Your task to perform on an android device: check battery use Image 0: 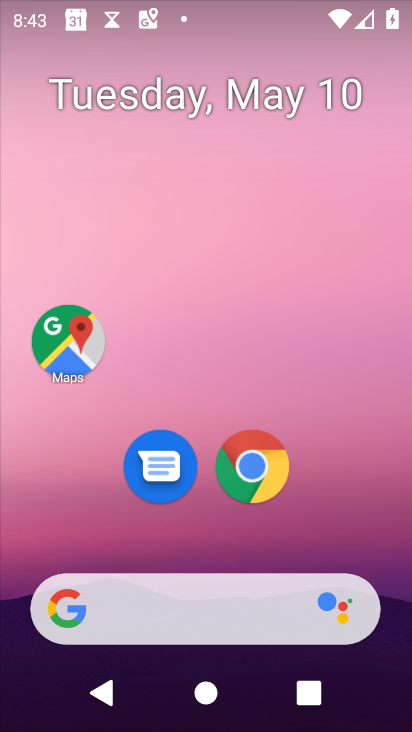
Step 0: drag from (341, 534) to (332, 156)
Your task to perform on an android device: check battery use Image 1: 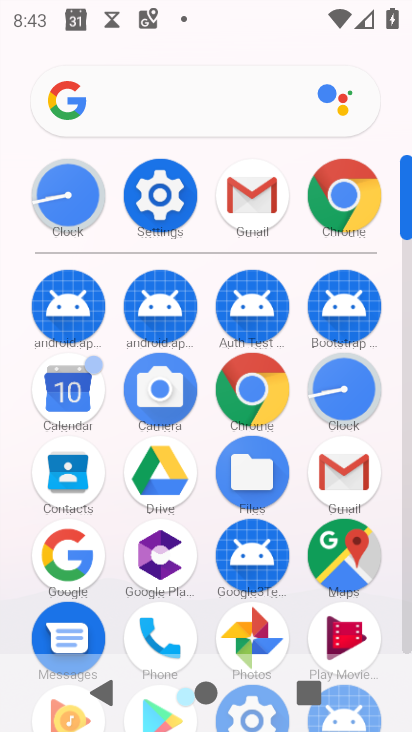
Step 1: click (157, 205)
Your task to perform on an android device: check battery use Image 2: 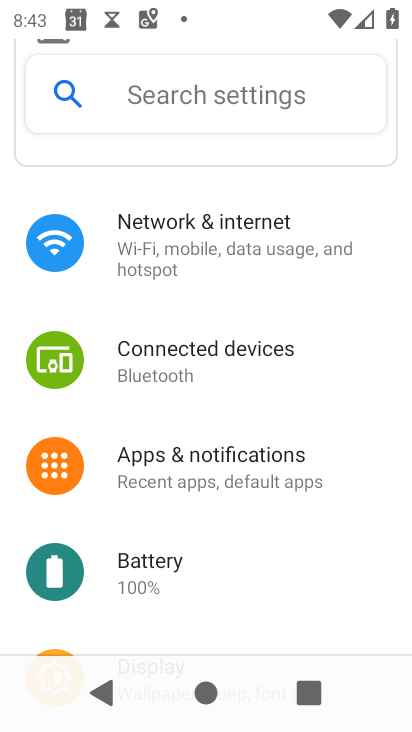
Step 2: click (228, 582)
Your task to perform on an android device: check battery use Image 3: 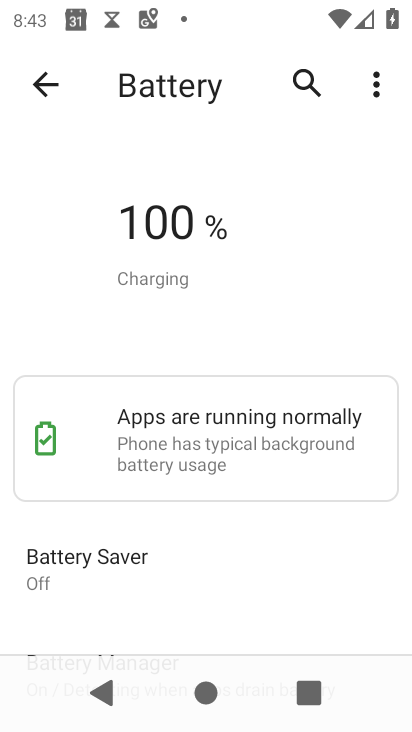
Step 3: click (379, 74)
Your task to perform on an android device: check battery use Image 4: 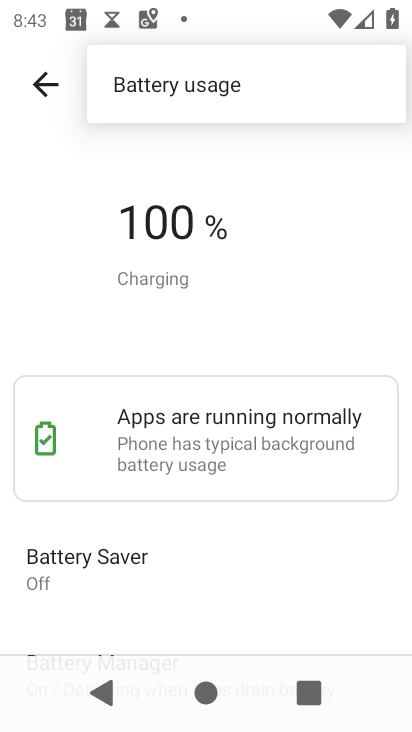
Step 4: click (349, 88)
Your task to perform on an android device: check battery use Image 5: 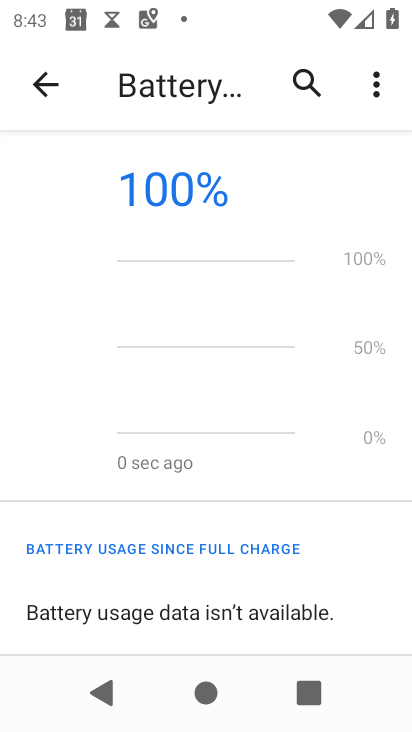
Step 5: task complete